Your task to perform on an android device: Open Youtube and go to "Your channel" Image 0: 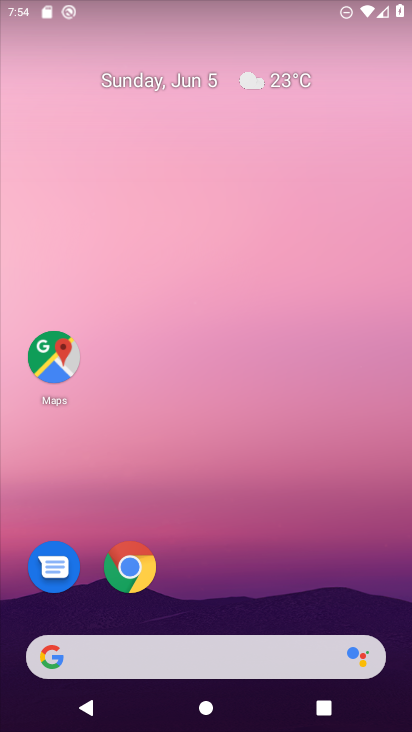
Step 0: drag from (390, 632) to (286, 152)
Your task to perform on an android device: Open Youtube and go to "Your channel" Image 1: 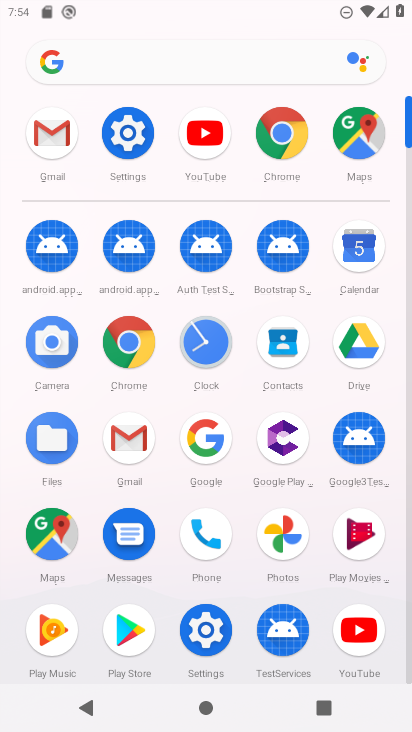
Step 1: click (354, 648)
Your task to perform on an android device: Open Youtube and go to "Your channel" Image 2: 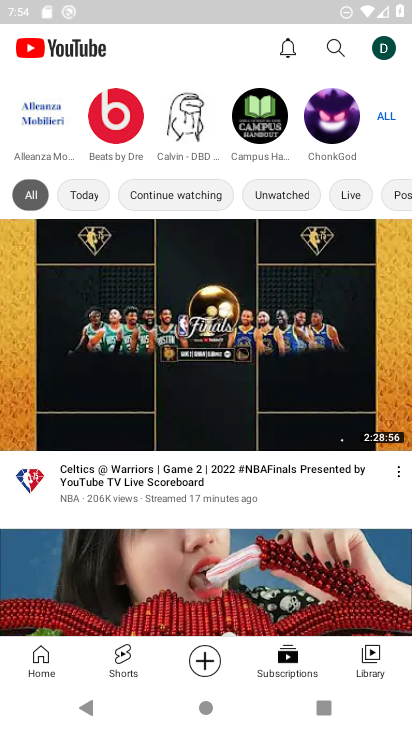
Step 2: click (375, 52)
Your task to perform on an android device: Open Youtube and go to "Your channel" Image 3: 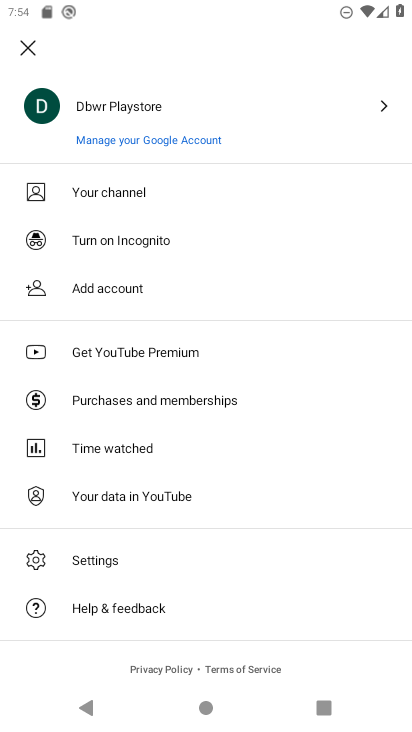
Step 3: click (117, 182)
Your task to perform on an android device: Open Youtube and go to "Your channel" Image 4: 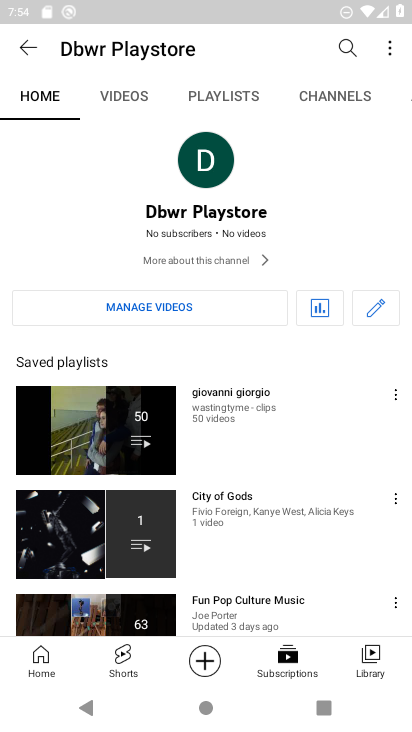
Step 4: task complete